Your task to perform on an android device: turn on improve location accuracy Image 0: 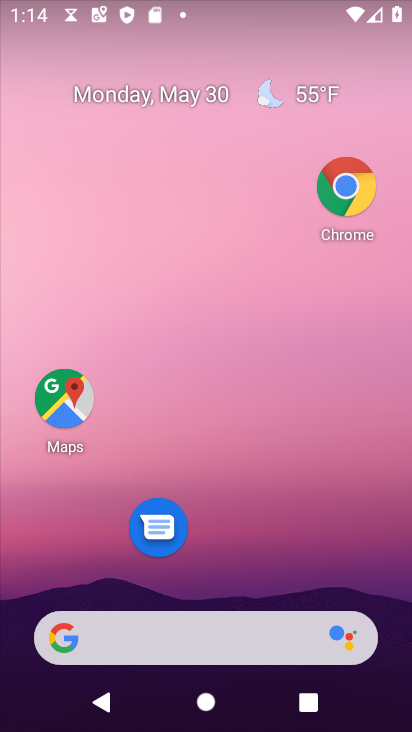
Step 0: drag from (216, 572) to (215, 41)
Your task to perform on an android device: turn on improve location accuracy Image 1: 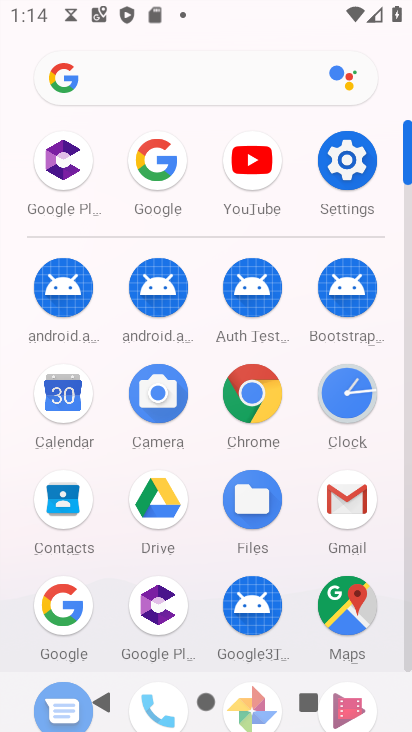
Step 1: click (331, 154)
Your task to perform on an android device: turn on improve location accuracy Image 2: 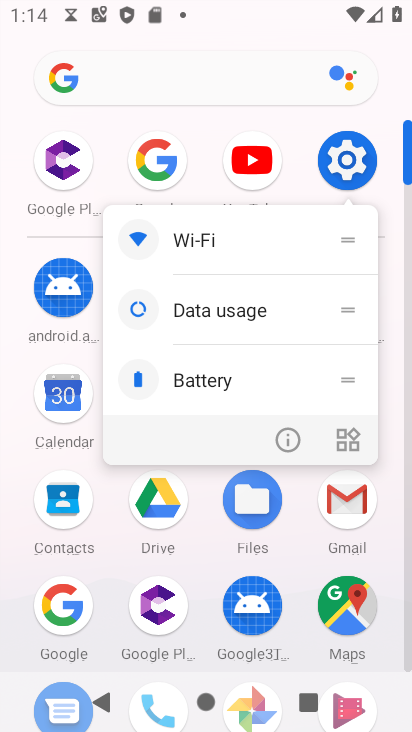
Step 2: click (277, 442)
Your task to perform on an android device: turn on improve location accuracy Image 3: 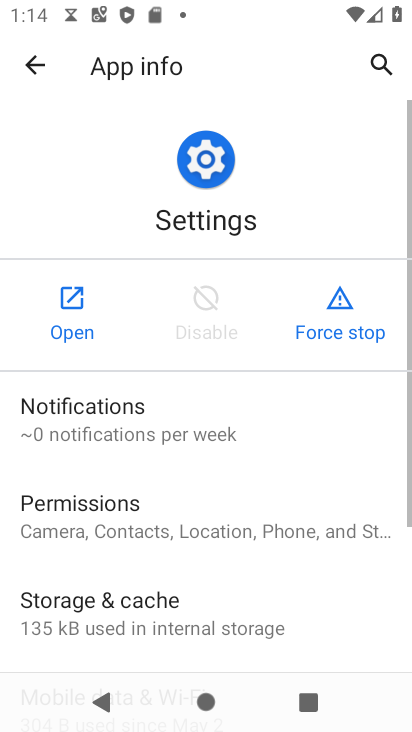
Step 3: click (72, 291)
Your task to perform on an android device: turn on improve location accuracy Image 4: 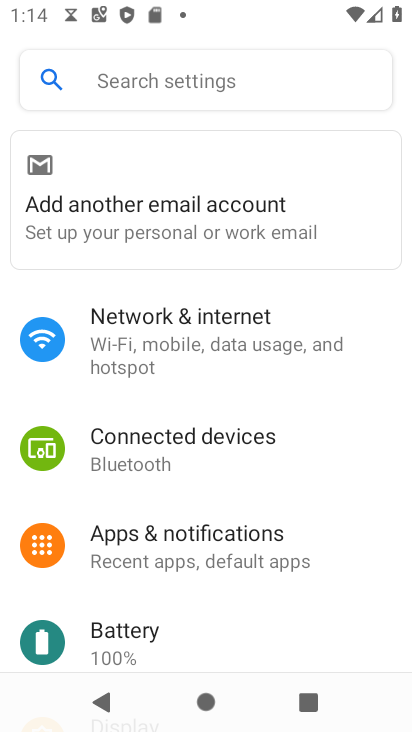
Step 4: drag from (159, 579) to (156, 77)
Your task to perform on an android device: turn on improve location accuracy Image 5: 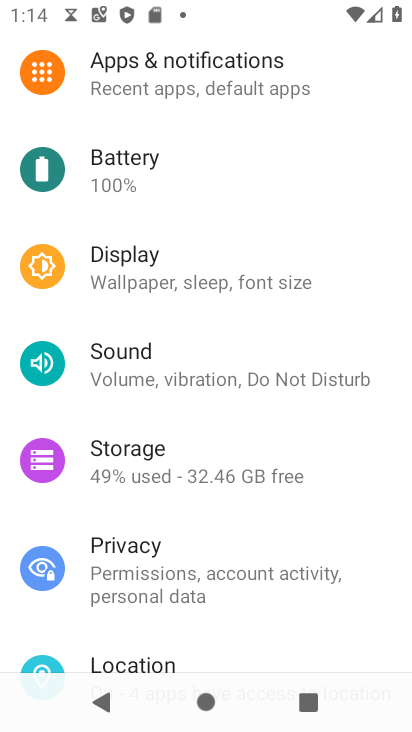
Step 5: drag from (183, 533) to (216, 239)
Your task to perform on an android device: turn on improve location accuracy Image 6: 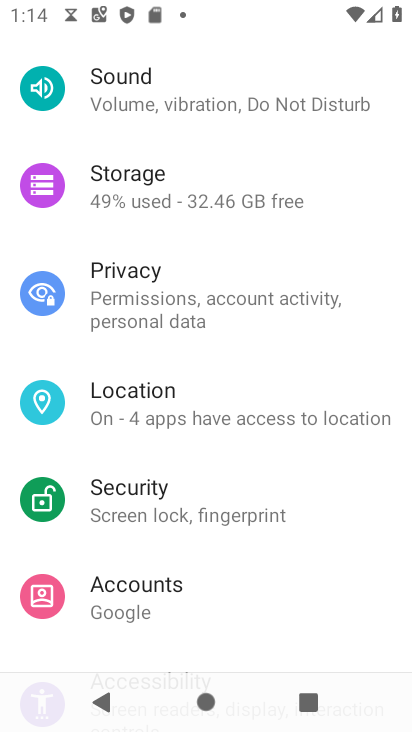
Step 6: click (208, 400)
Your task to perform on an android device: turn on improve location accuracy Image 7: 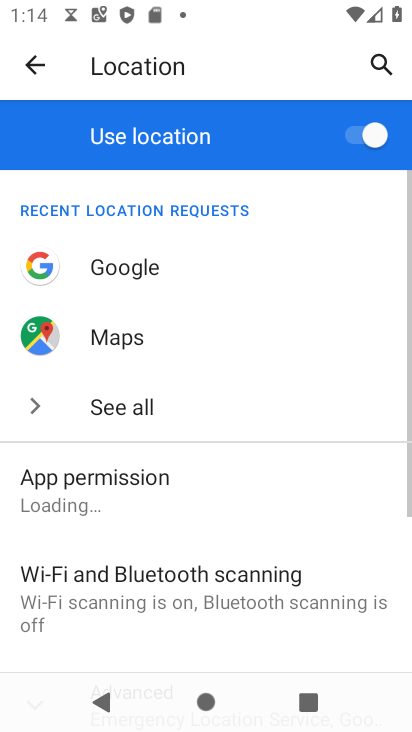
Step 7: drag from (213, 527) to (192, 232)
Your task to perform on an android device: turn on improve location accuracy Image 8: 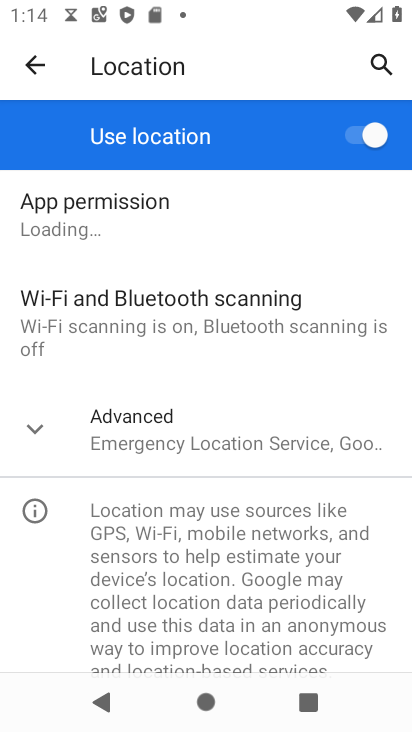
Step 8: click (159, 499)
Your task to perform on an android device: turn on improve location accuracy Image 9: 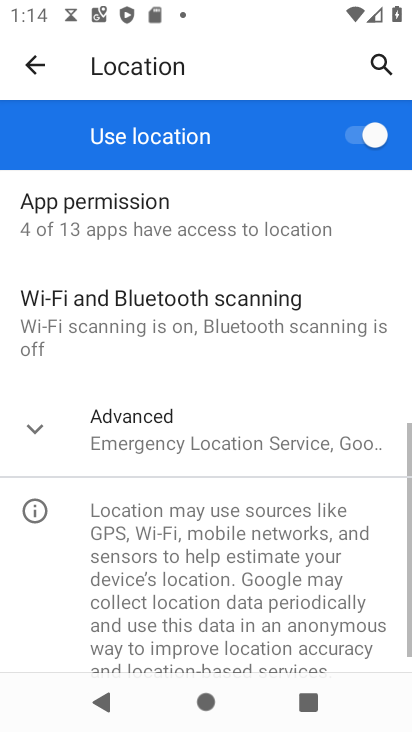
Step 9: click (162, 450)
Your task to perform on an android device: turn on improve location accuracy Image 10: 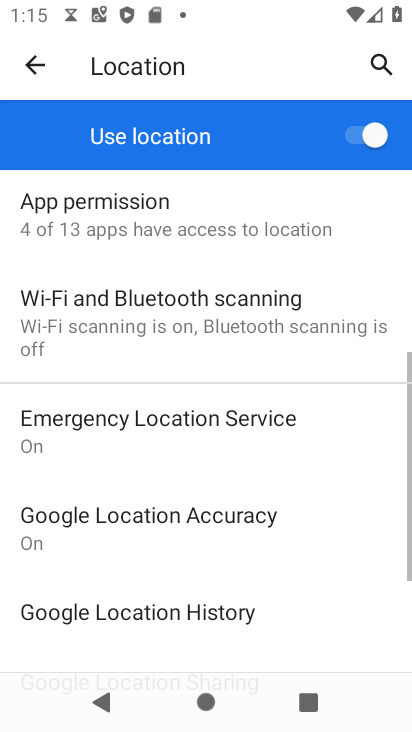
Step 10: drag from (192, 519) to (189, 333)
Your task to perform on an android device: turn on improve location accuracy Image 11: 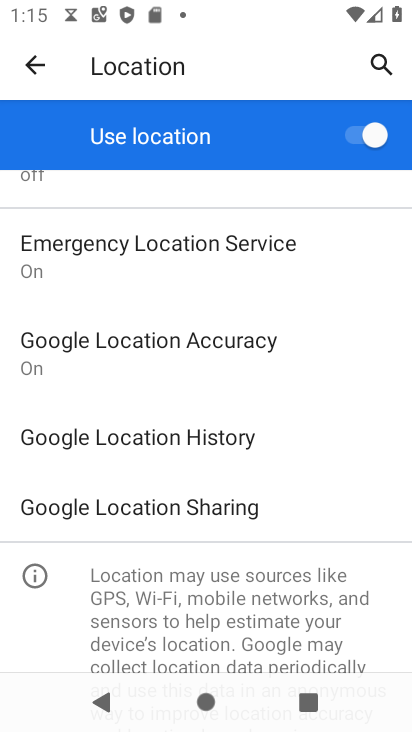
Step 11: click (162, 361)
Your task to perform on an android device: turn on improve location accuracy Image 12: 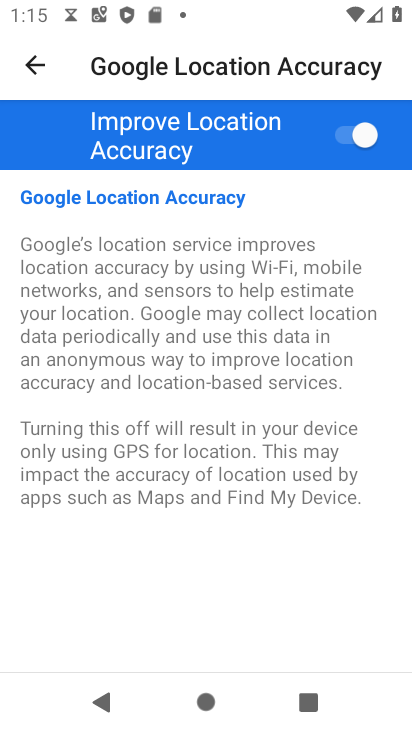
Step 12: task complete